Your task to perform on an android device: Show me the alarms in the clock app Image 0: 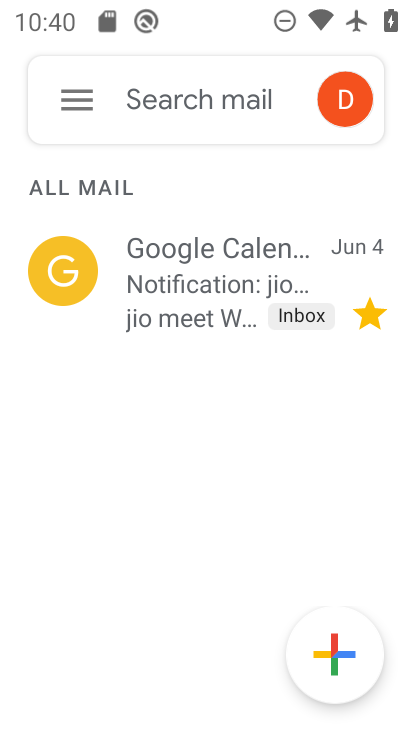
Step 0: press home button
Your task to perform on an android device: Show me the alarms in the clock app Image 1: 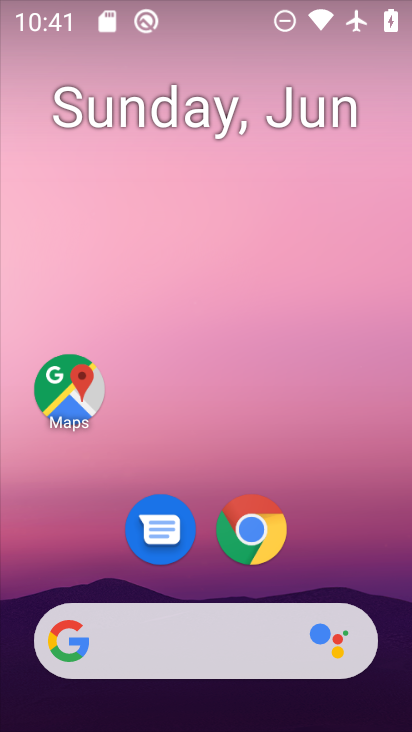
Step 1: drag from (401, 626) to (333, 136)
Your task to perform on an android device: Show me the alarms in the clock app Image 2: 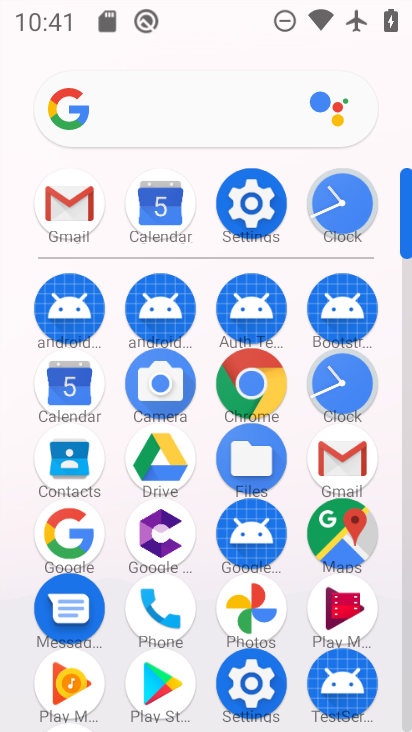
Step 2: click (343, 384)
Your task to perform on an android device: Show me the alarms in the clock app Image 3: 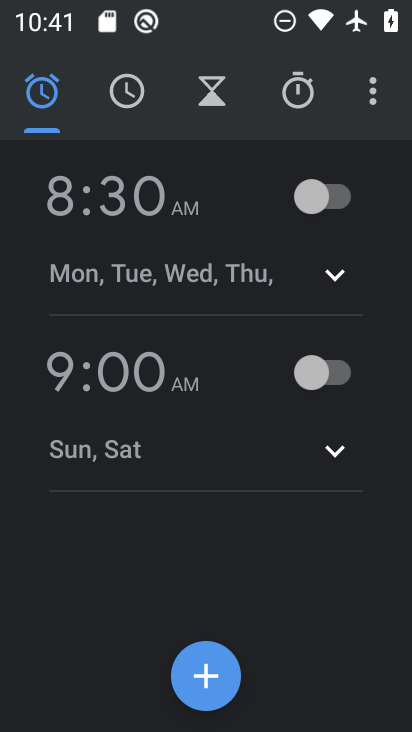
Step 3: task complete